Your task to perform on an android device: Find coffee shops on Maps Image 0: 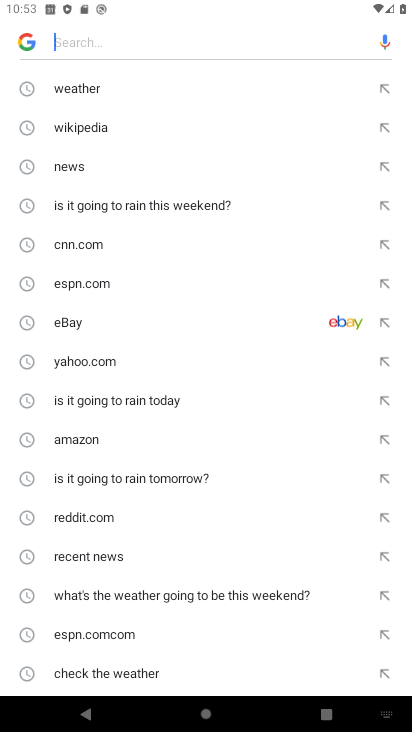
Step 0: press back button
Your task to perform on an android device: Find coffee shops on Maps Image 1: 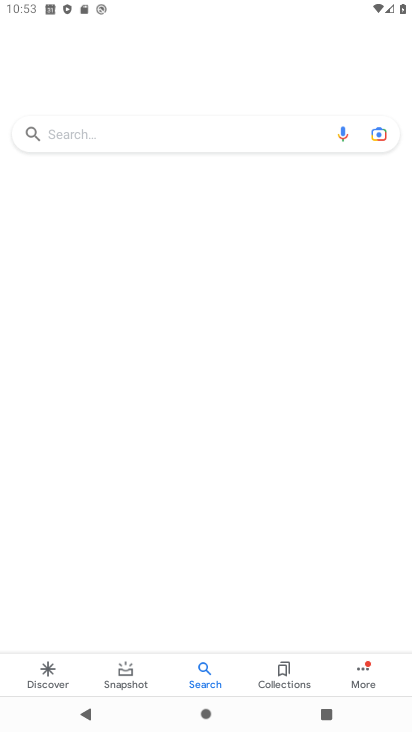
Step 1: press back button
Your task to perform on an android device: Find coffee shops on Maps Image 2: 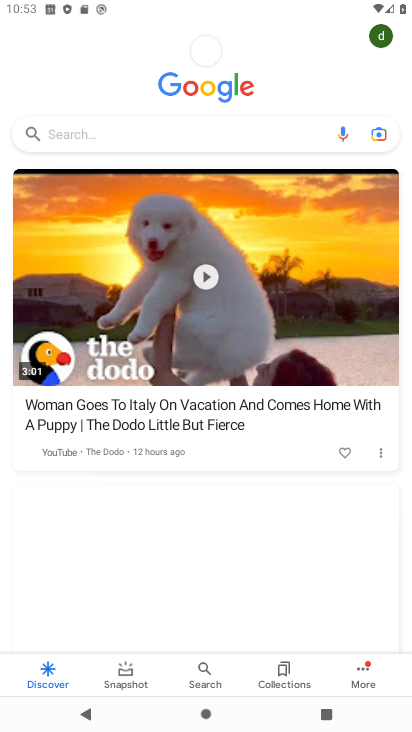
Step 2: press back button
Your task to perform on an android device: Find coffee shops on Maps Image 3: 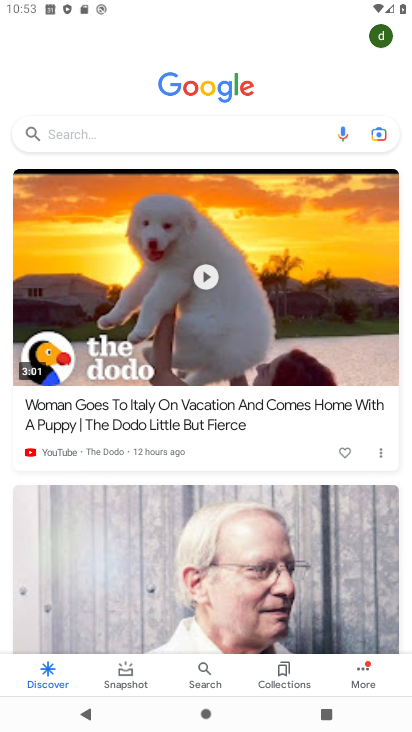
Step 3: press back button
Your task to perform on an android device: Find coffee shops on Maps Image 4: 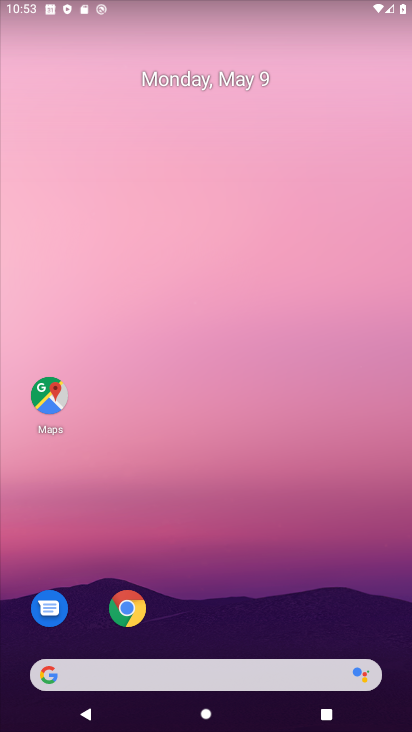
Step 4: click (24, 399)
Your task to perform on an android device: Find coffee shops on Maps Image 5: 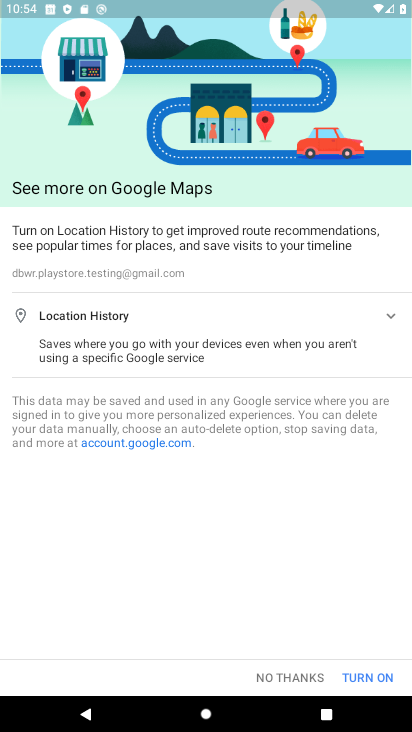
Step 5: click (280, 684)
Your task to perform on an android device: Find coffee shops on Maps Image 6: 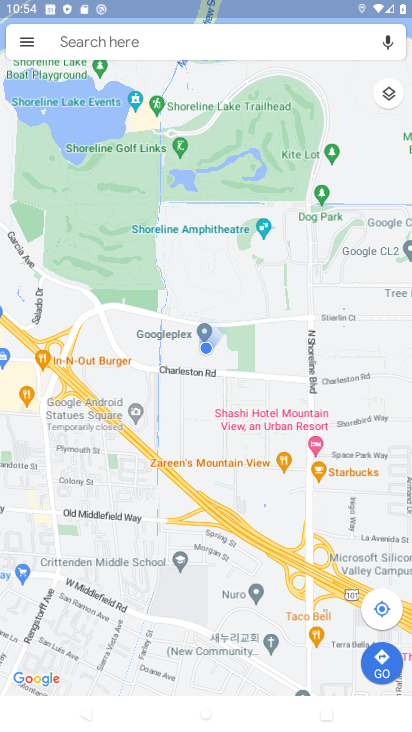
Step 6: click (138, 50)
Your task to perform on an android device: Find coffee shops on Maps Image 7: 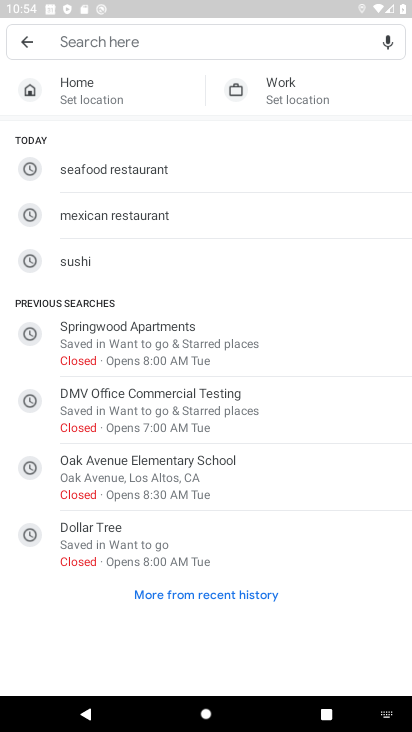
Step 7: type "Coffee shops"
Your task to perform on an android device: Find coffee shops on Maps Image 8: 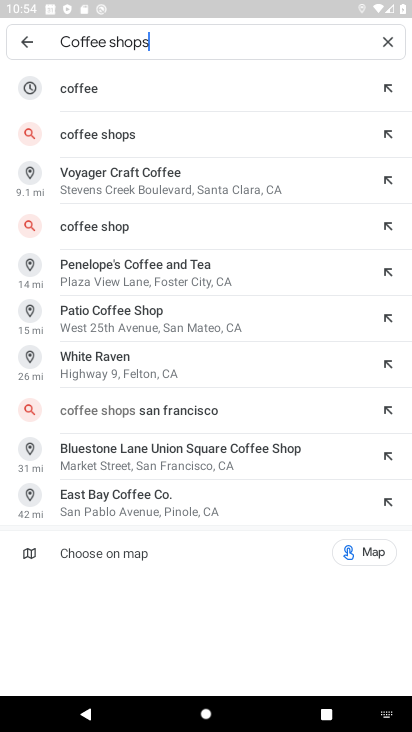
Step 8: click (160, 130)
Your task to perform on an android device: Find coffee shops on Maps Image 9: 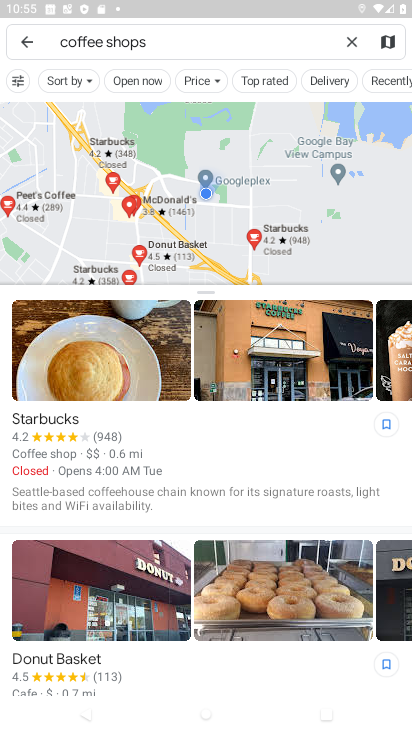
Step 9: task complete